Your task to perform on an android device: add a contact in the contacts app Image 0: 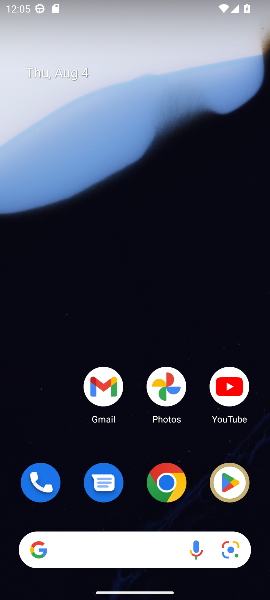
Step 0: drag from (136, 439) to (153, 87)
Your task to perform on an android device: add a contact in the contacts app Image 1: 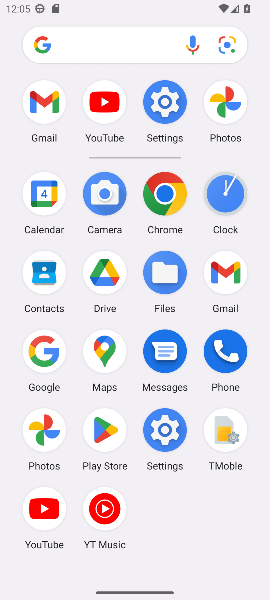
Step 1: click (42, 288)
Your task to perform on an android device: add a contact in the contacts app Image 2: 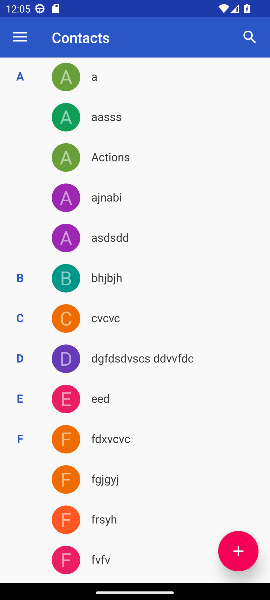
Step 2: click (236, 542)
Your task to perform on an android device: add a contact in the contacts app Image 3: 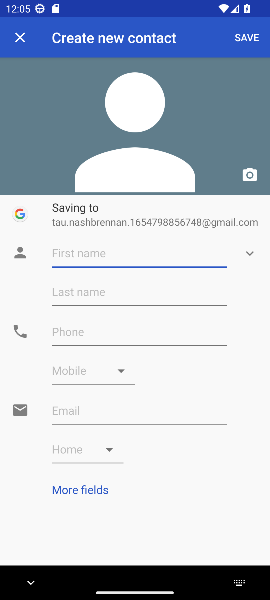
Step 3: type "ffchfc"
Your task to perform on an android device: add a contact in the contacts app Image 4: 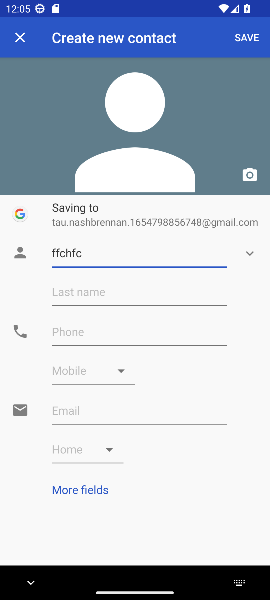
Step 4: click (86, 326)
Your task to perform on an android device: add a contact in the contacts app Image 5: 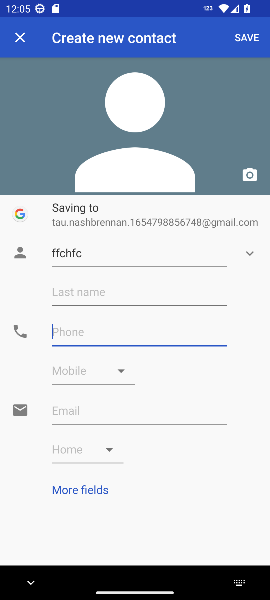
Step 5: type "7575475634"
Your task to perform on an android device: add a contact in the contacts app Image 6: 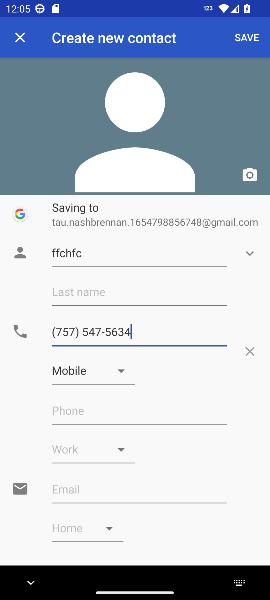
Step 6: click (247, 37)
Your task to perform on an android device: add a contact in the contacts app Image 7: 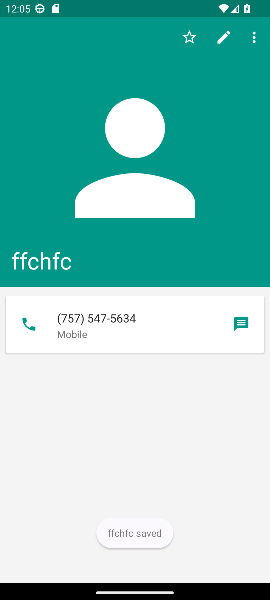
Step 7: task complete